Your task to perform on an android device: Open Google Chrome Image 0: 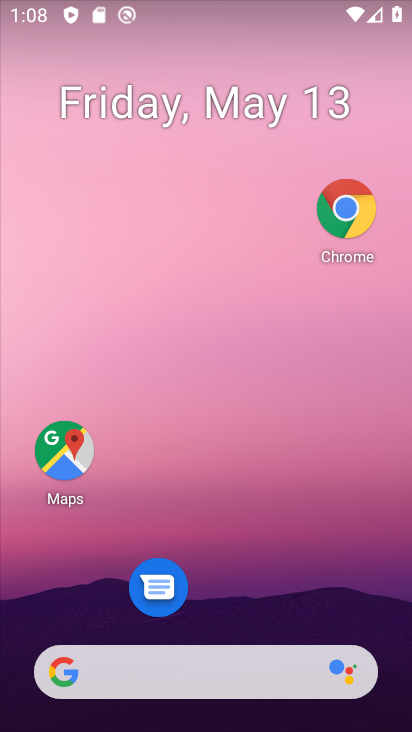
Step 0: click (330, 224)
Your task to perform on an android device: Open Google Chrome Image 1: 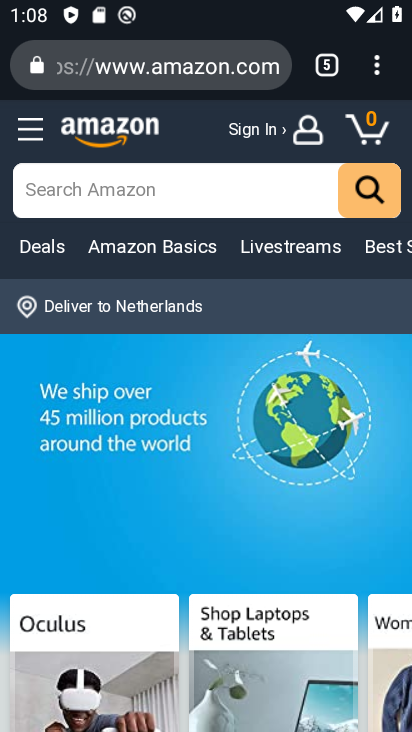
Step 1: task complete